Your task to perform on an android device: Search for bose quietcomfort 35 on costco.com, select the first entry, add it to the cart, then select checkout. Image 0: 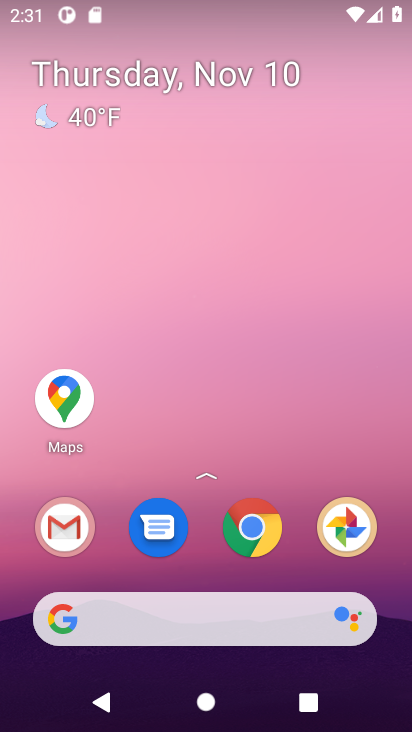
Step 0: drag from (291, 646) to (330, 141)
Your task to perform on an android device: Search for bose quietcomfort 35 on costco.com, select the first entry, add it to the cart, then select checkout. Image 1: 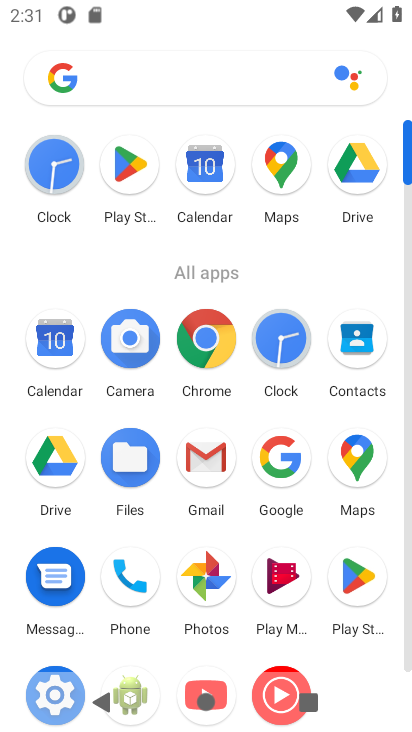
Step 1: click (205, 352)
Your task to perform on an android device: Search for bose quietcomfort 35 on costco.com, select the first entry, add it to the cart, then select checkout. Image 2: 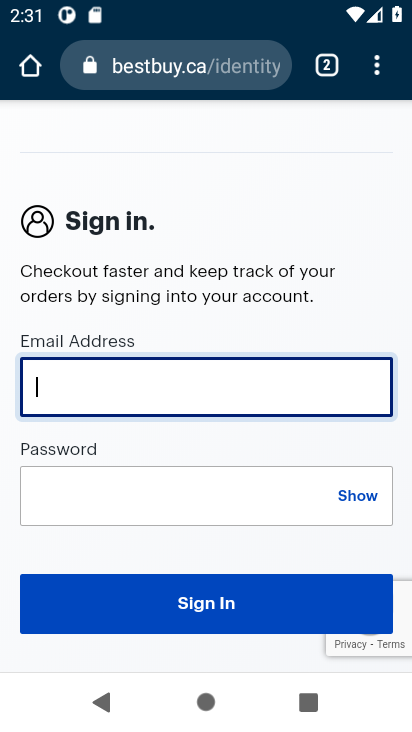
Step 2: click (209, 52)
Your task to perform on an android device: Search for bose quietcomfort 35 on costco.com, select the first entry, add it to the cart, then select checkout. Image 3: 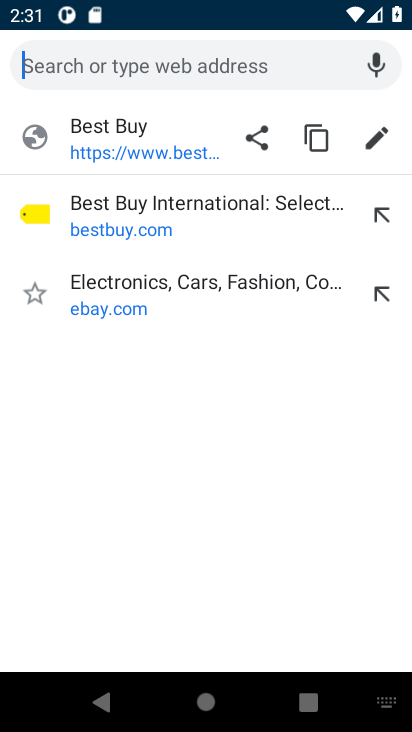
Step 3: type "costco.com"
Your task to perform on an android device: Search for bose quietcomfort 35 on costco.com, select the first entry, add it to the cart, then select checkout. Image 4: 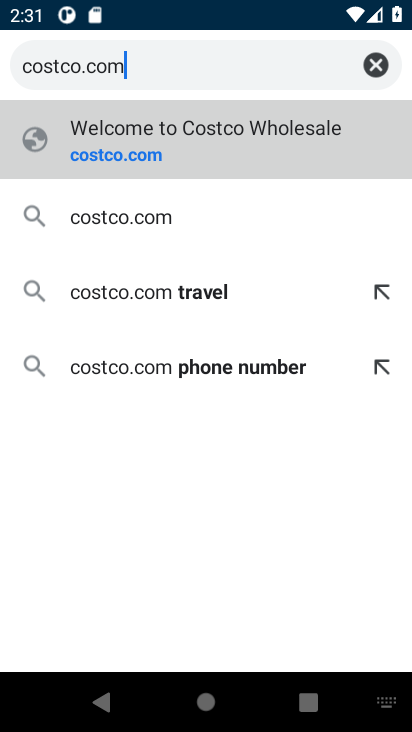
Step 4: press enter
Your task to perform on an android device: Search for bose quietcomfort 35 on costco.com, select the first entry, add it to the cart, then select checkout. Image 5: 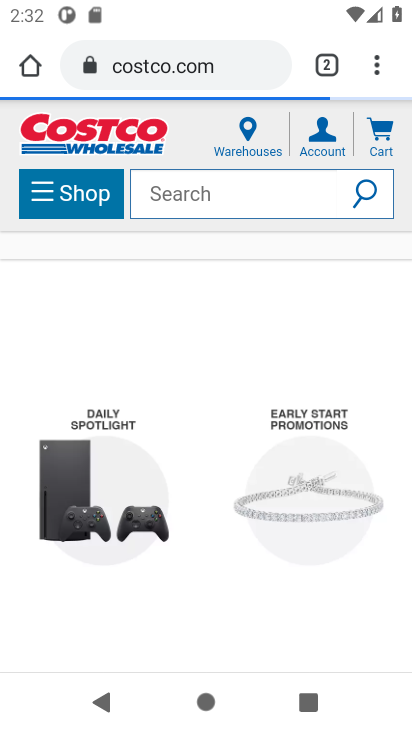
Step 5: click (217, 182)
Your task to perform on an android device: Search for bose quietcomfort 35 on costco.com, select the first entry, add it to the cart, then select checkout. Image 6: 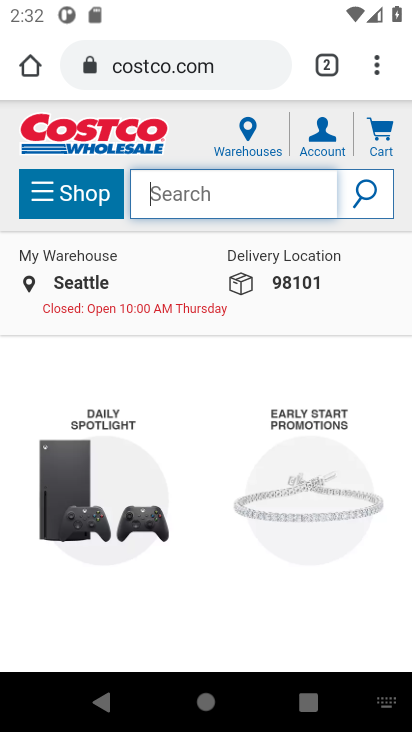
Step 6: type "quietcomfort 35"
Your task to perform on an android device: Search for bose quietcomfort 35 on costco.com, select the first entry, add it to the cart, then select checkout. Image 7: 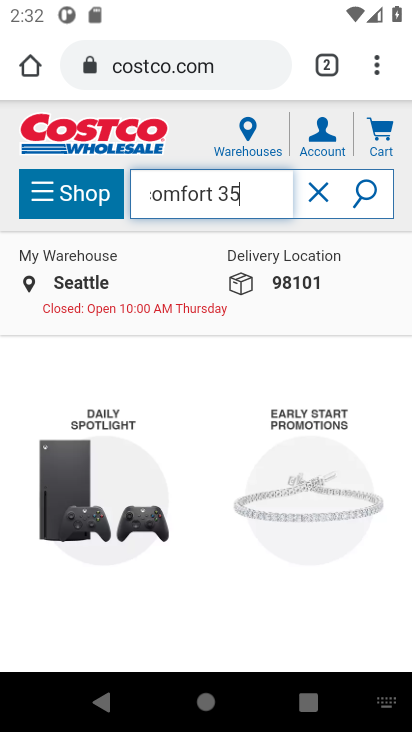
Step 7: press enter
Your task to perform on an android device: Search for bose quietcomfort 35 on costco.com, select the first entry, add it to the cart, then select checkout. Image 8: 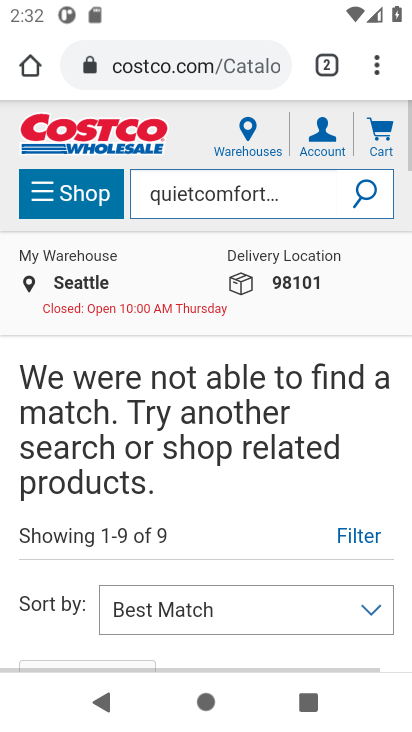
Step 8: drag from (191, 535) to (252, 235)
Your task to perform on an android device: Search for bose quietcomfort 35 on costco.com, select the first entry, add it to the cart, then select checkout. Image 9: 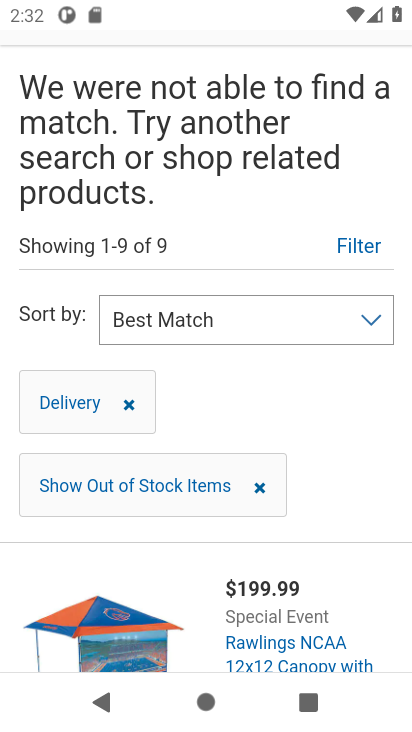
Step 9: drag from (272, 552) to (285, 286)
Your task to perform on an android device: Search for bose quietcomfort 35 on costco.com, select the first entry, add it to the cart, then select checkout. Image 10: 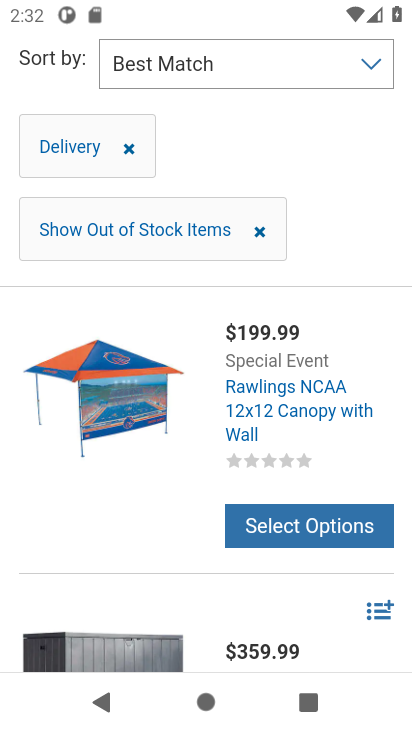
Step 10: click (308, 528)
Your task to perform on an android device: Search for bose quietcomfort 35 on costco.com, select the first entry, add it to the cart, then select checkout. Image 11: 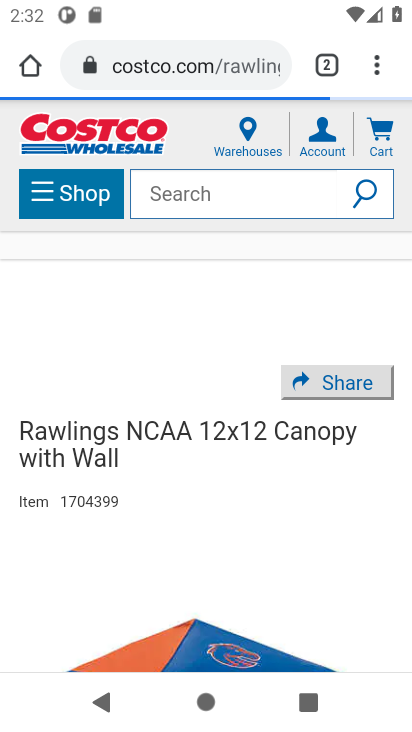
Step 11: drag from (269, 589) to (279, 305)
Your task to perform on an android device: Search for bose quietcomfort 35 on costco.com, select the first entry, add it to the cart, then select checkout. Image 12: 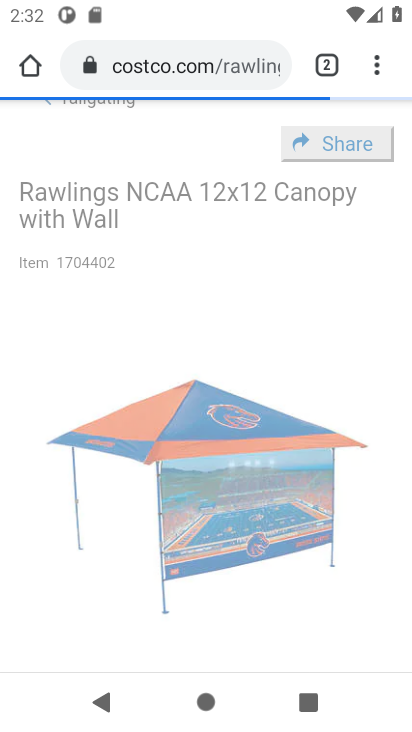
Step 12: click (369, 287)
Your task to perform on an android device: Search for bose quietcomfort 35 on costco.com, select the first entry, add it to the cart, then select checkout. Image 13: 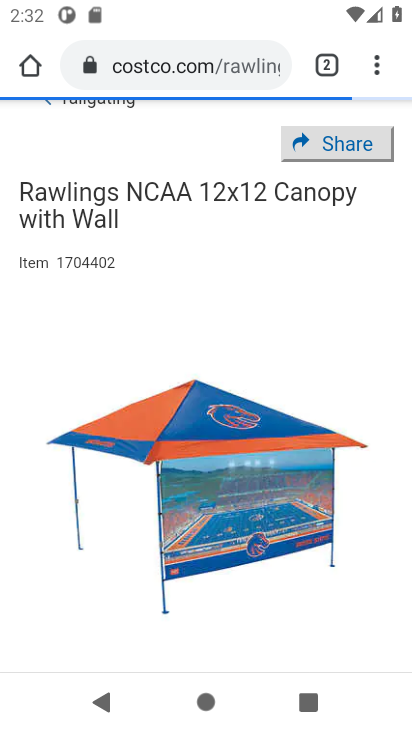
Step 13: drag from (277, 652) to (258, 336)
Your task to perform on an android device: Search for bose quietcomfort 35 on costco.com, select the first entry, add it to the cart, then select checkout. Image 14: 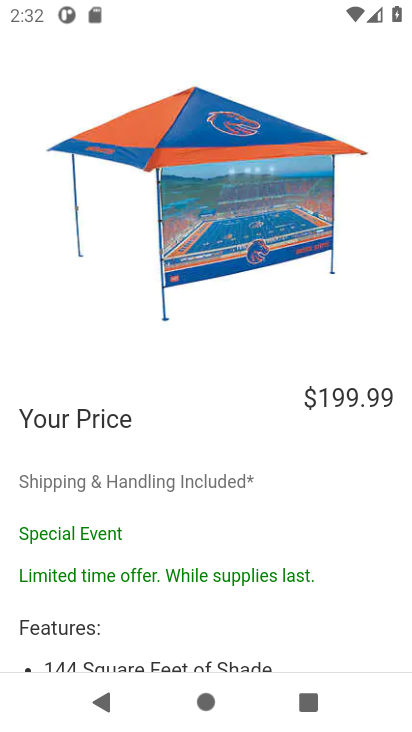
Step 14: drag from (273, 585) to (292, 287)
Your task to perform on an android device: Search for bose quietcomfort 35 on costco.com, select the first entry, add it to the cart, then select checkout. Image 15: 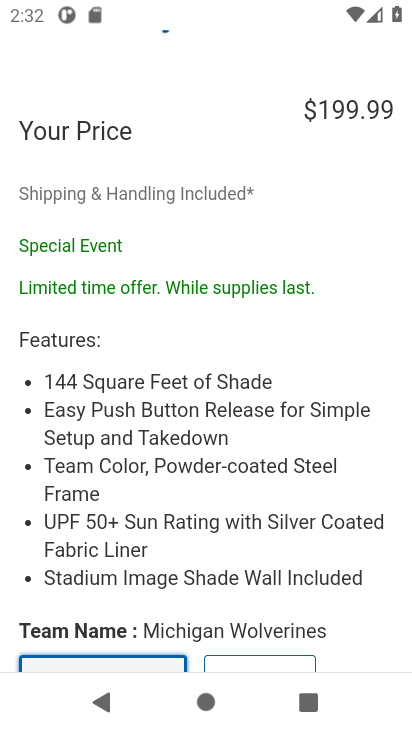
Step 15: drag from (230, 649) to (254, 393)
Your task to perform on an android device: Search for bose quietcomfort 35 on costco.com, select the first entry, add it to the cart, then select checkout. Image 16: 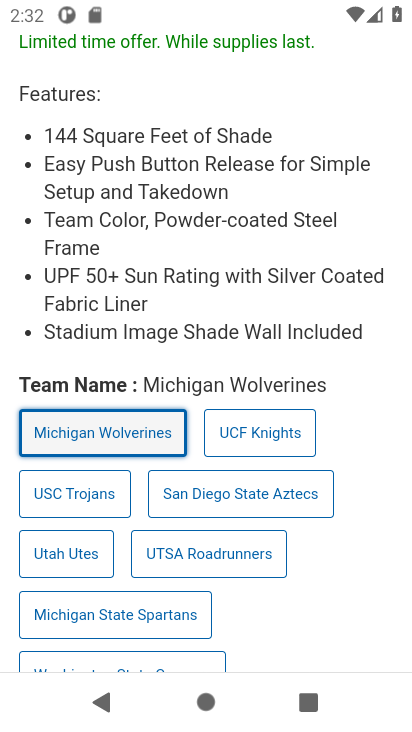
Step 16: drag from (168, 484) to (121, 216)
Your task to perform on an android device: Search for bose quietcomfort 35 on costco.com, select the first entry, add it to the cart, then select checkout. Image 17: 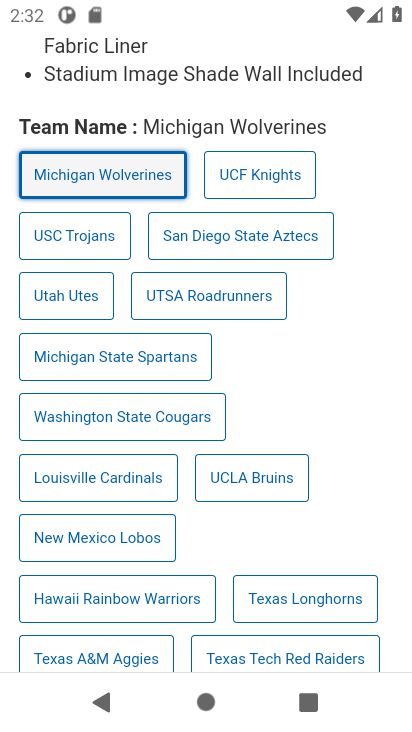
Step 17: drag from (214, 502) to (216, 148)
Your task to perform on an android device: Search for bose quietcomfort 35 on costco.com, select the first entry, add it to the cart, then select checkout. Image 18: 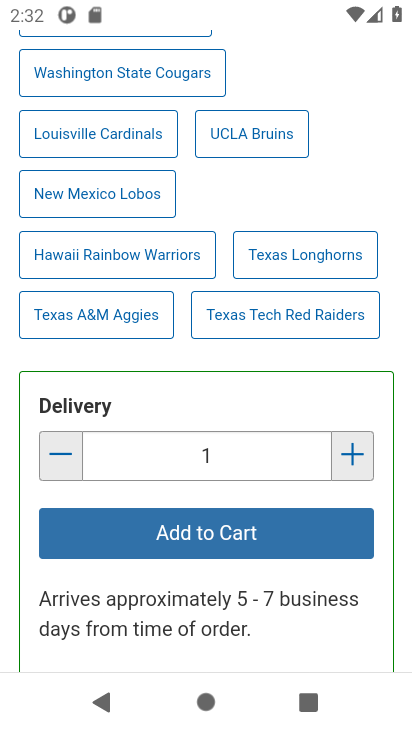
Step 18: drag from (226, 196) to (238, 430)
Your task to perform on an android device: Search for bose quietcomfort 35 on costco.com, select the first entry, add it to the cart, then select checkout. Image 19: 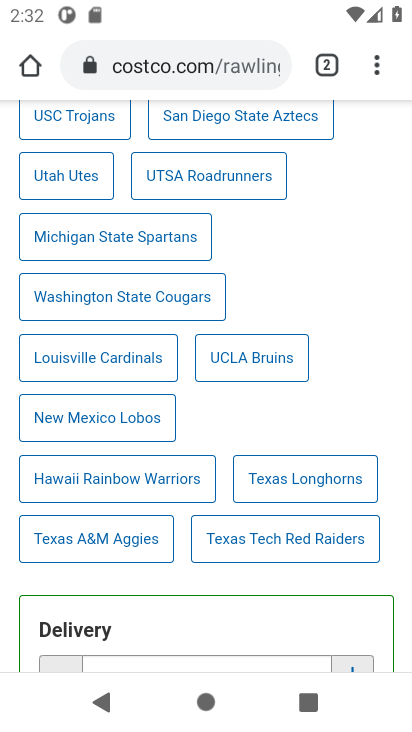
Step 19: drag from (225, 550) to (268, 169)
Your task to perform on an android device: Search for bose quietcomfort 35 on costco.com, select the first entry, add it to the cart, then select checkout. Image 20: 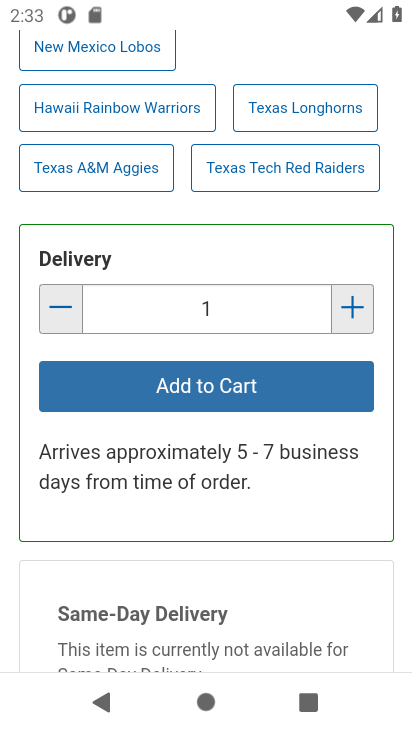
Step 20: drag from (268, 393) to (233, 390)
Your task to perform on an android device: Search for bose quietcomfort 35 on costco.com, select the first entry, add it to the cart, then select checkout. Image 21: 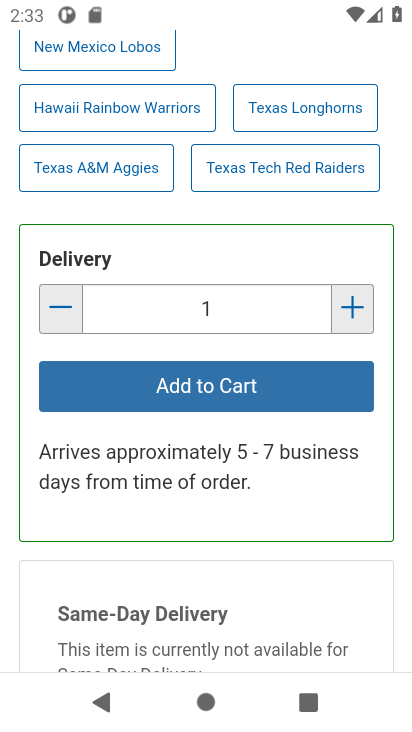
Step 21: click (233, 390)
Your task to perform on an android device: Search for bose quietcomfort 35 on costco.com, select the first entry, add it to the cart, then select checkout. Image 22: 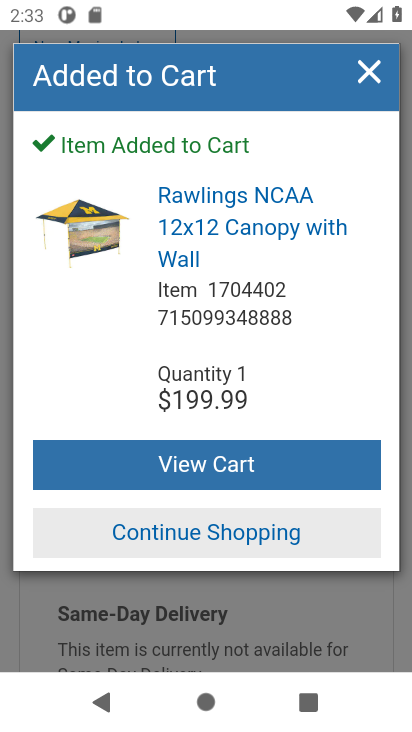
Step 22: click (225, 467)
Your task to perform on an android device: Search for bose quietcomfort 35 on costco.com, select the first entry, add it to the cart, then select checkout. Image 23: 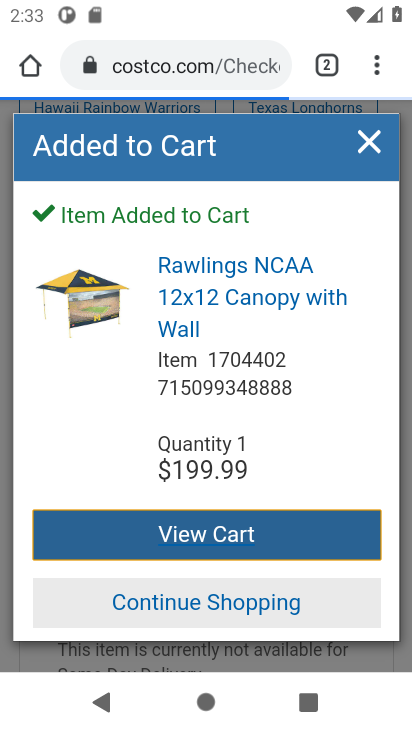
Step 23: click (207, 530)
Your task to perform on an android device: Search for bose quietcomfort 35 on costco.com, select the first entry, add it to the cart, then select checkout. Image 24: 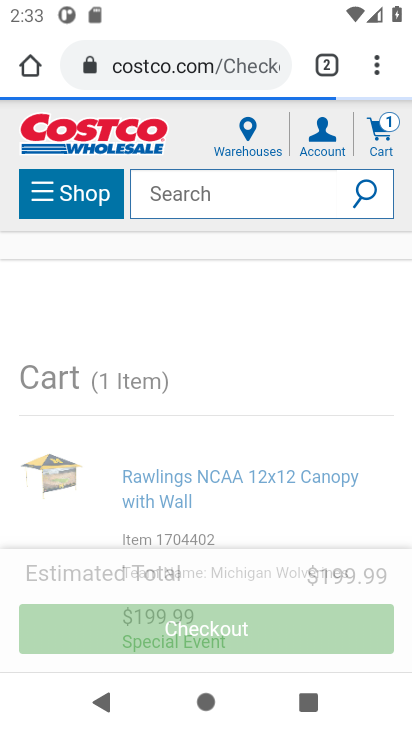
Step 24: click (194, 628)
Your task to perform on an android device: Search for bose quietcomfort 35 on costco.com, select the first entry, add it to the cart, then select checkout. Image 25: 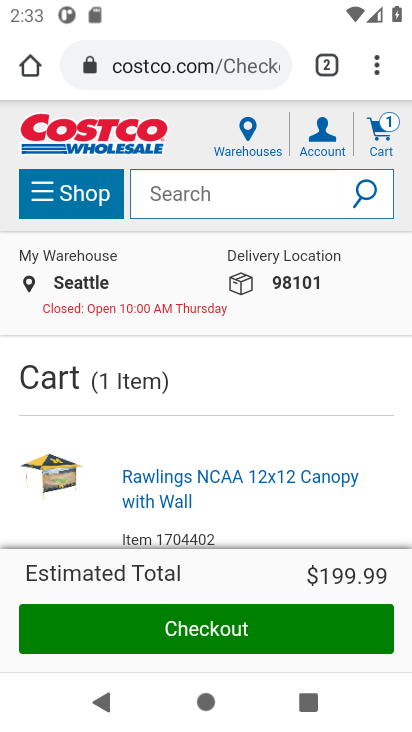
Step 25: click (194, 628)
Your task to perform on an android device: Search for bose quietcomfort 35 on costco.com, select the first entry, add it to the cart, then select checkout. Image 26: 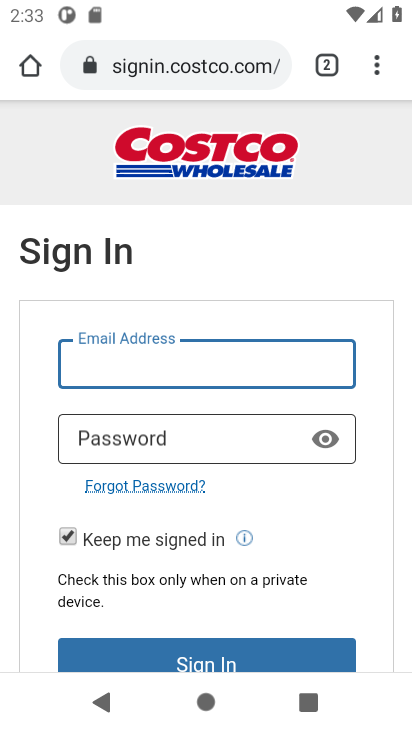
Step 26: task complete